Your task to perform on an android device: turn off notifications in google photos Image 0: 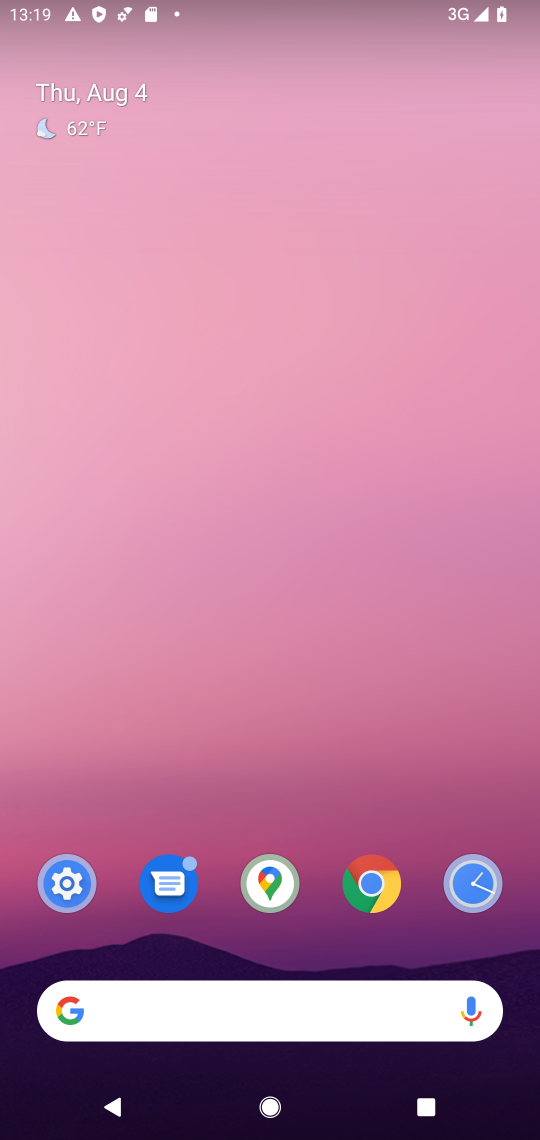
Step 0: drag from (216, 923) to (227, 123)
Your task to perform on an android device: turn off notifications in google photos Image 1: 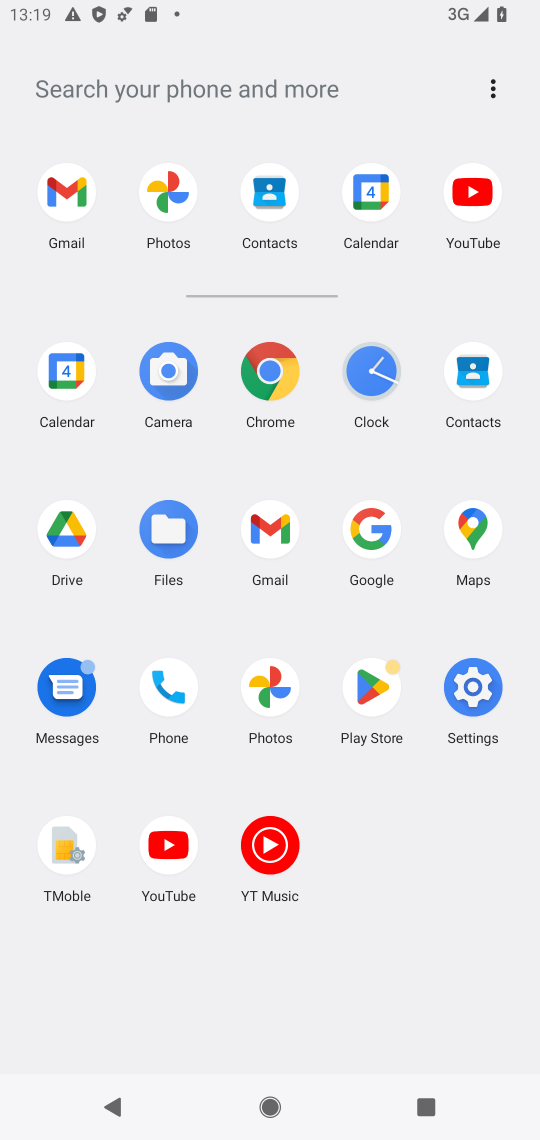
Step 1: click (284, 699)
Your task to perform on an android device: turn off notifications in google photos Image 2: 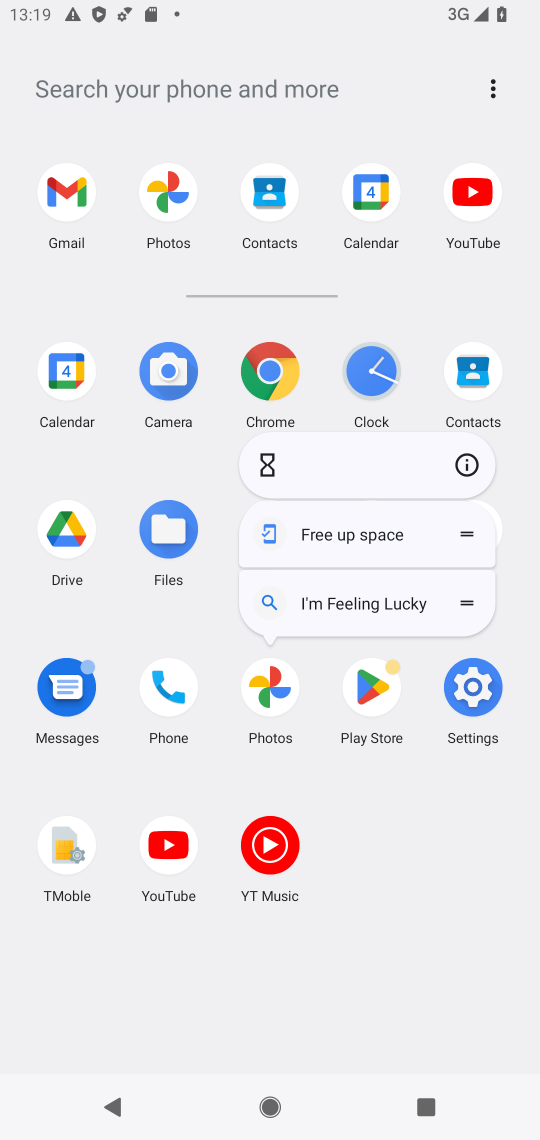
Step 2: click (472, 458)
Your task to perform on an android device: turn off notifications in google photos Image 3: 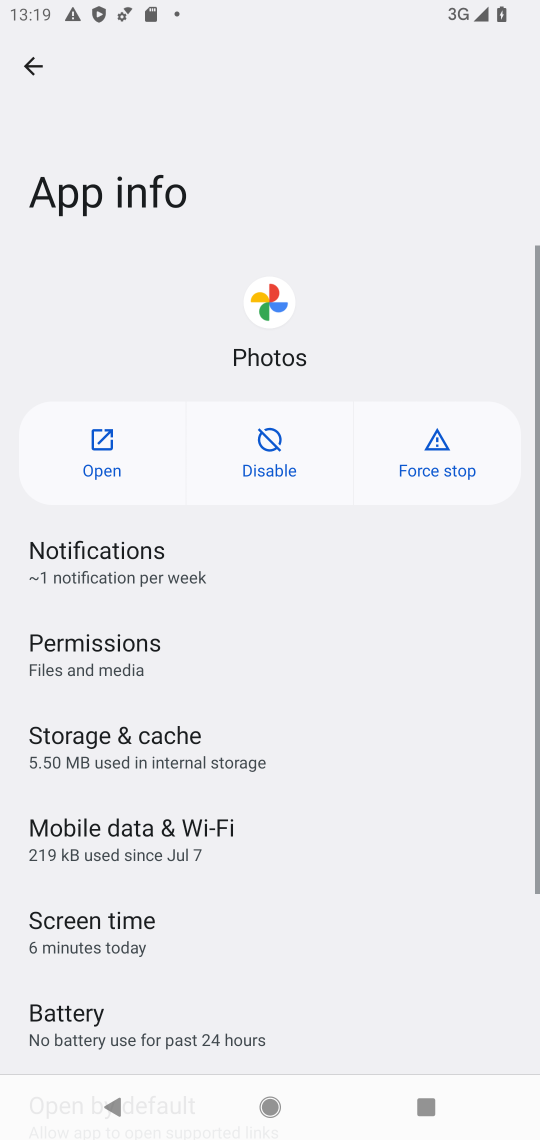
Step 3: click (59, 468)
Your task to perform on an android device: turn off notifications in google photos Image 4: 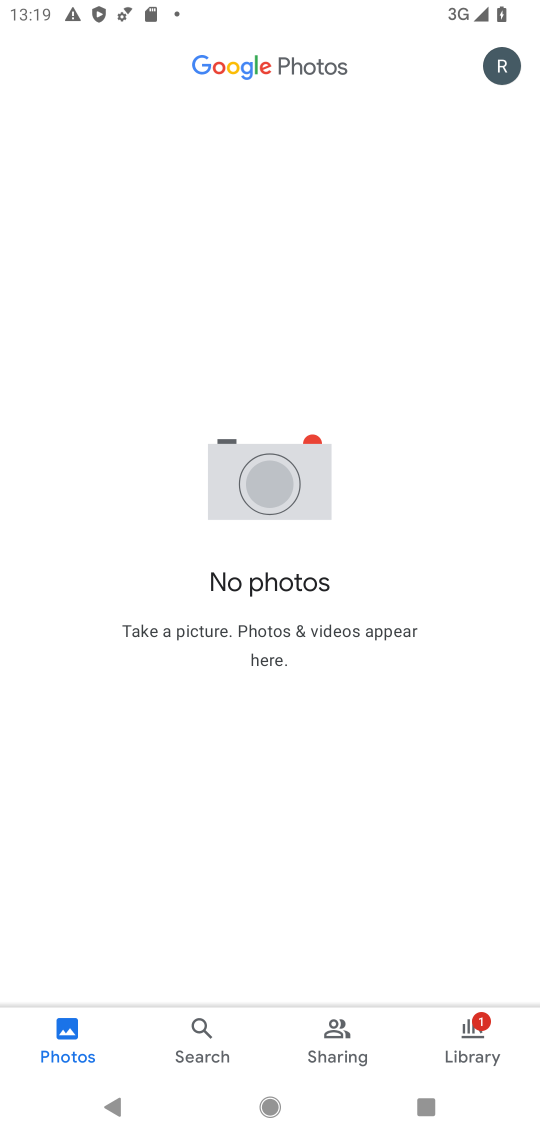
Step 4: drag from (305, 872) to (357, 583)
Your task to perform on an android device: turn off notifications in google photos Image 5: 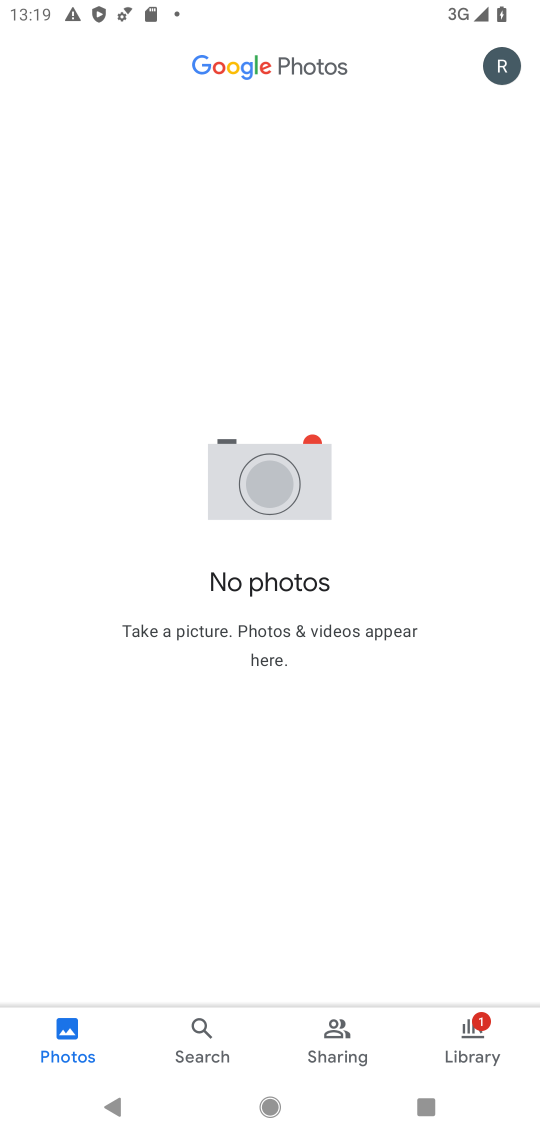
Step 5: drag from (302, 849) to (305, 549)
Your task to perform on an android device: turn off notifications in google photos Image 6: 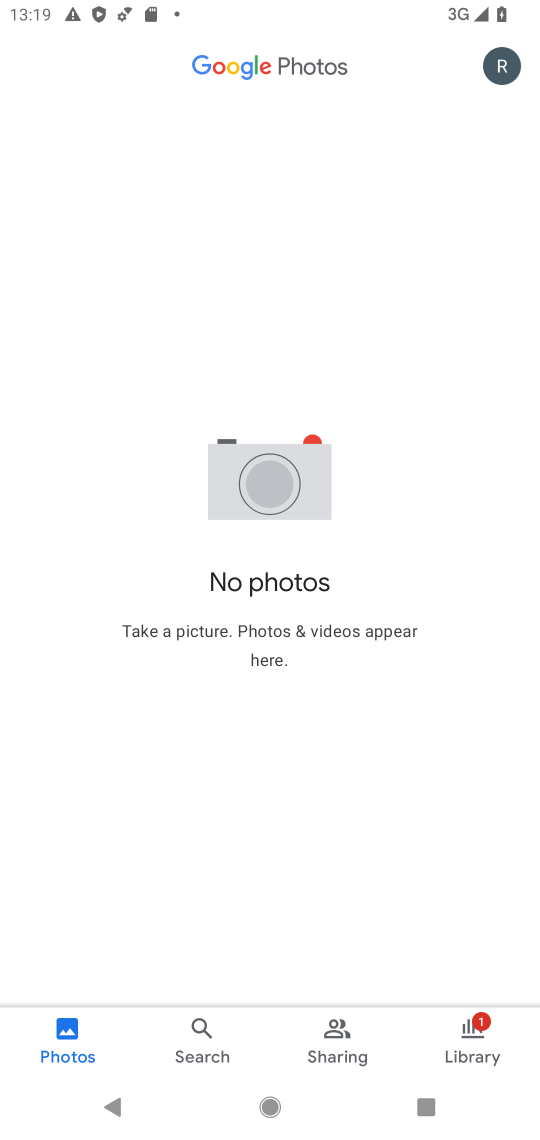
Step 6: click (504, 69)
Your task to perform on an android device: turn off notifications in google photos Image 7: 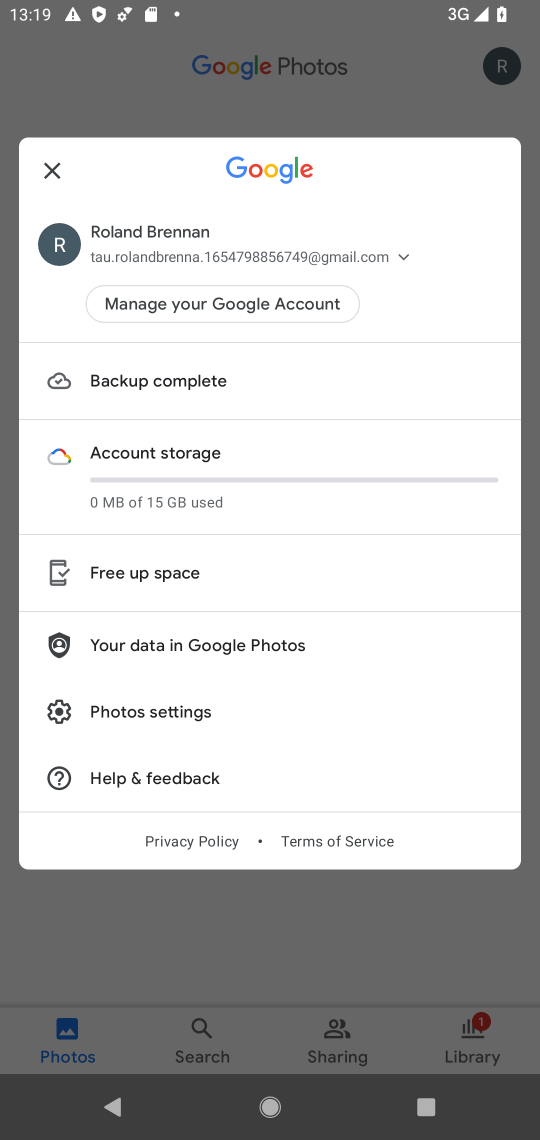
Step 7: click (119, 720)
Your task to perform on an android device: turn off notifications in google photos Image 8: 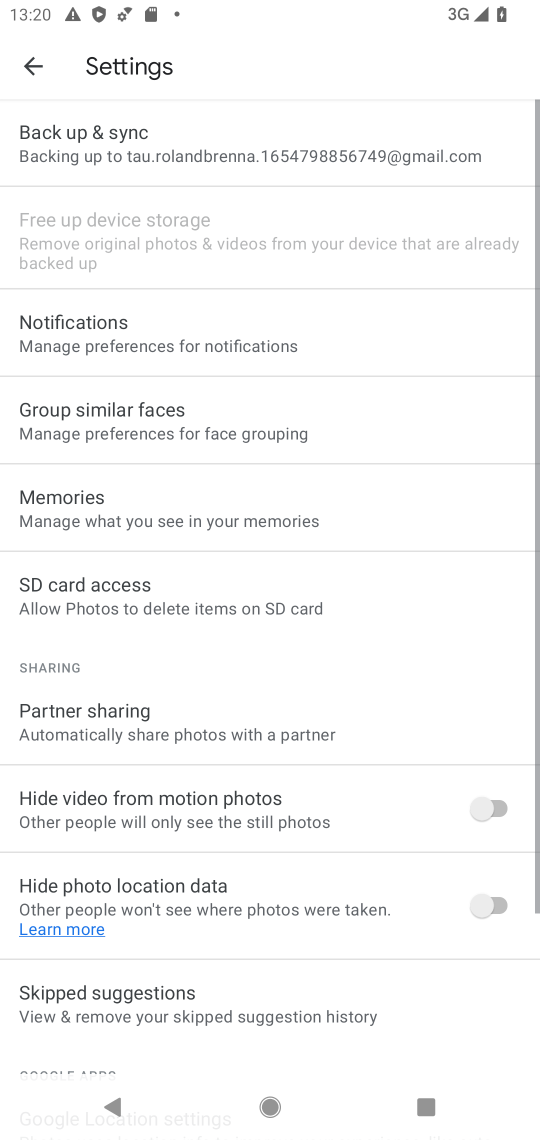
Step 8: drag from (244, 864) to (303, 466)
Your task to perform on an android device: turn off notifications in google photos Image 9: 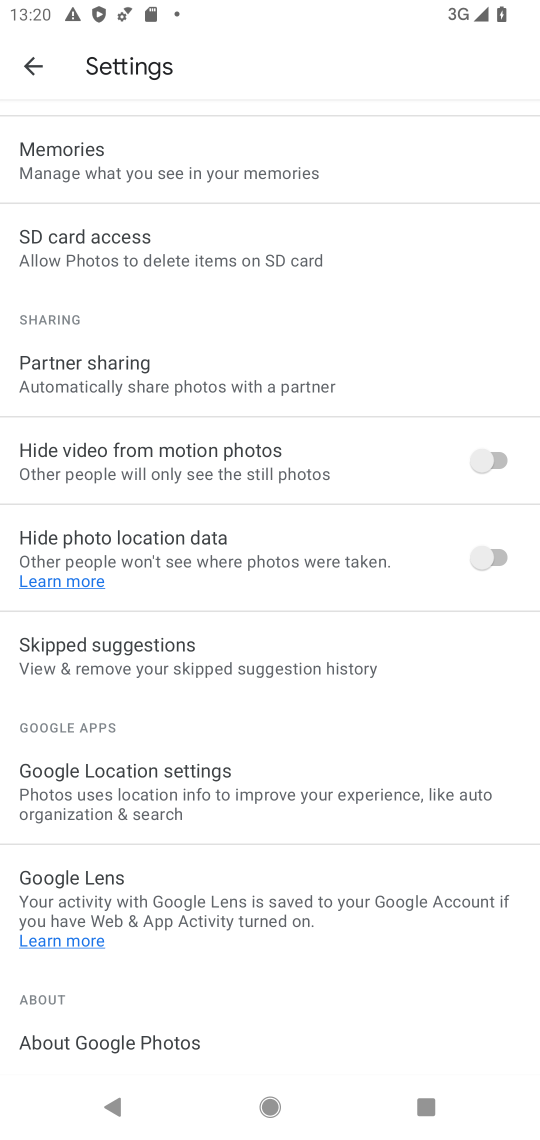
Step 9: drag from (222, 292) to (247, 948)
Your task to perform on an android device: turn off notifications in google photos Image 10: 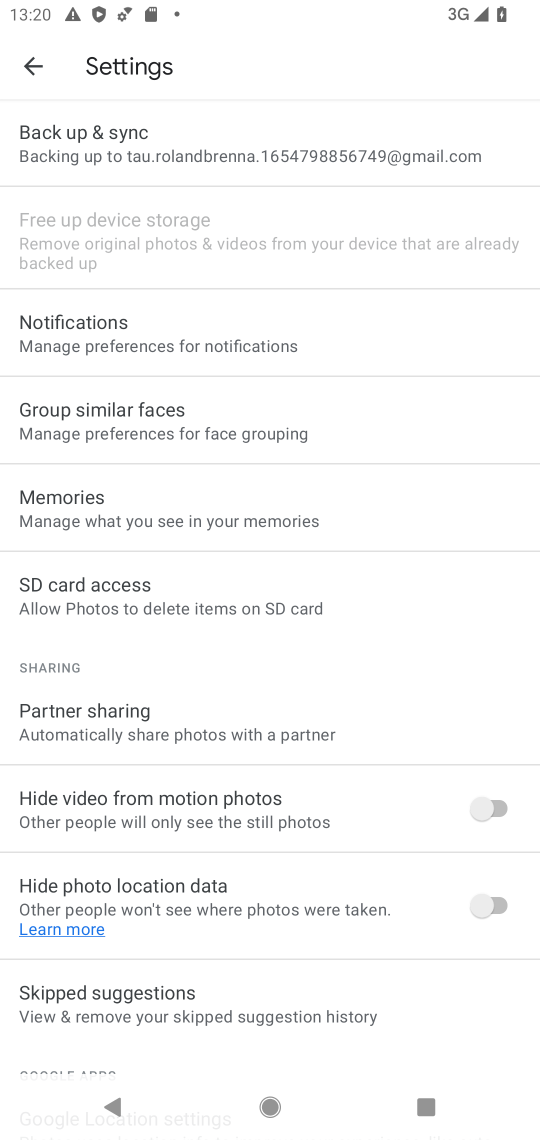
Step 10: drag from (203, 882) to (372, 293)
Your task to perform on an android device: turn off notifications in google photos Image 11: 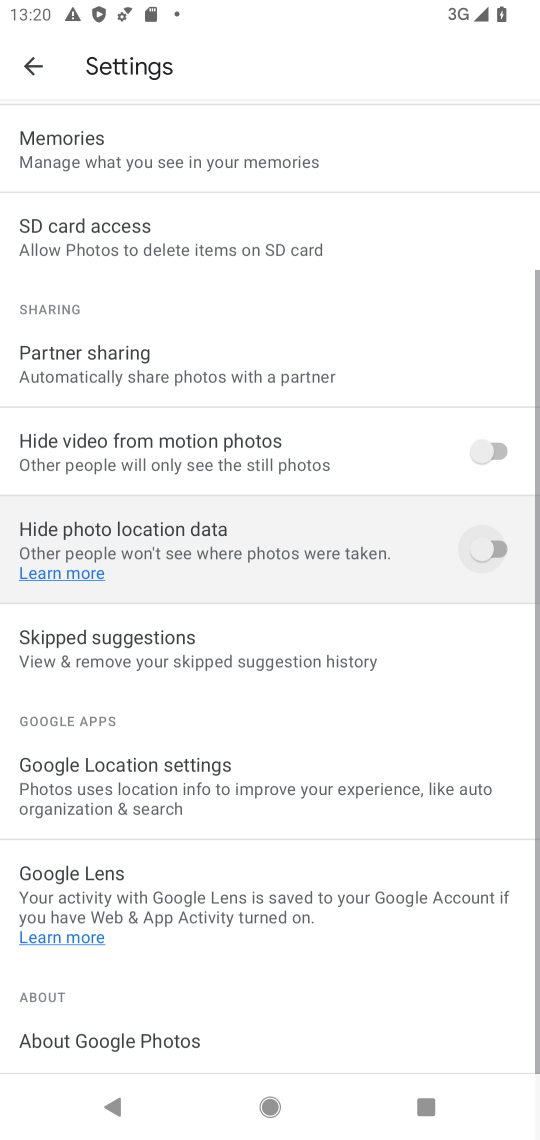
Step 11: drag from (338, 353) to (222, 1078)
Your task to perform on an android device: turn off notifications in google photos Image 12: 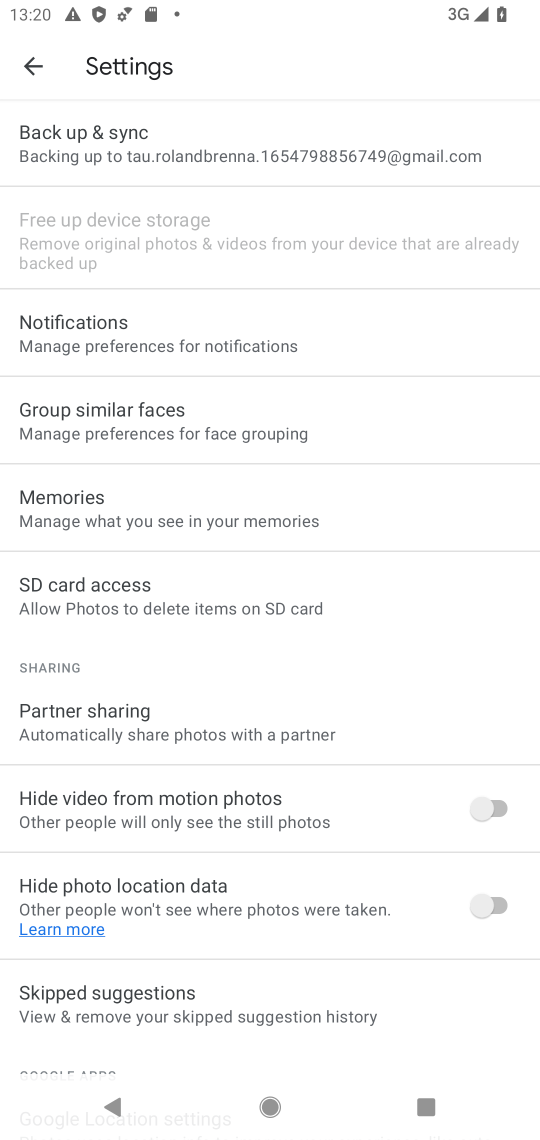
Step 12: click (133, 340)
Your task to perform on an android device: turn off notifications in google photos Image 13: 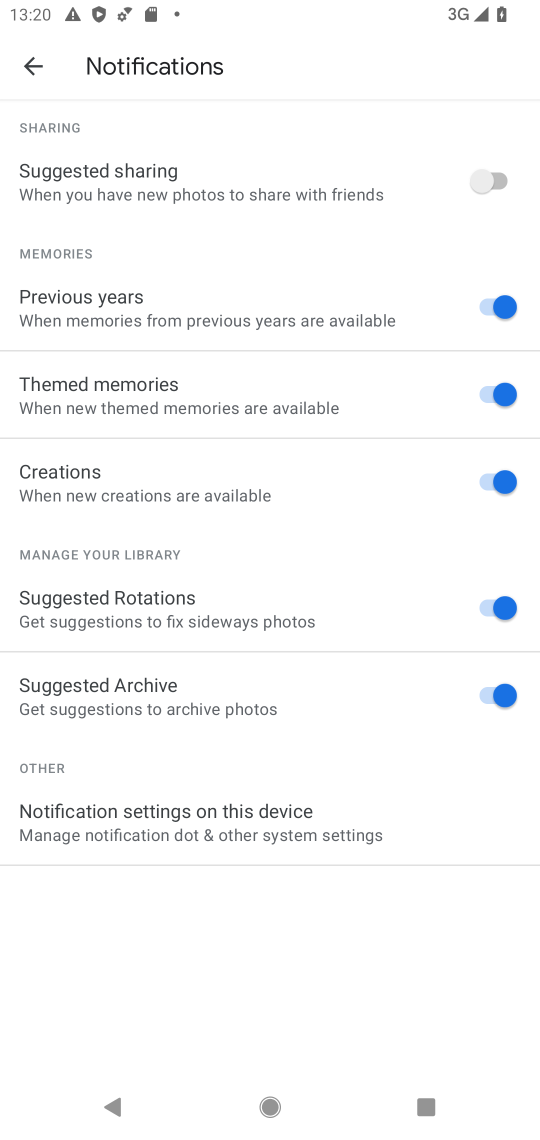
Step 13: click (179, 829)
Your task to perform on an android device: turn off notifications in google photos Image 14: 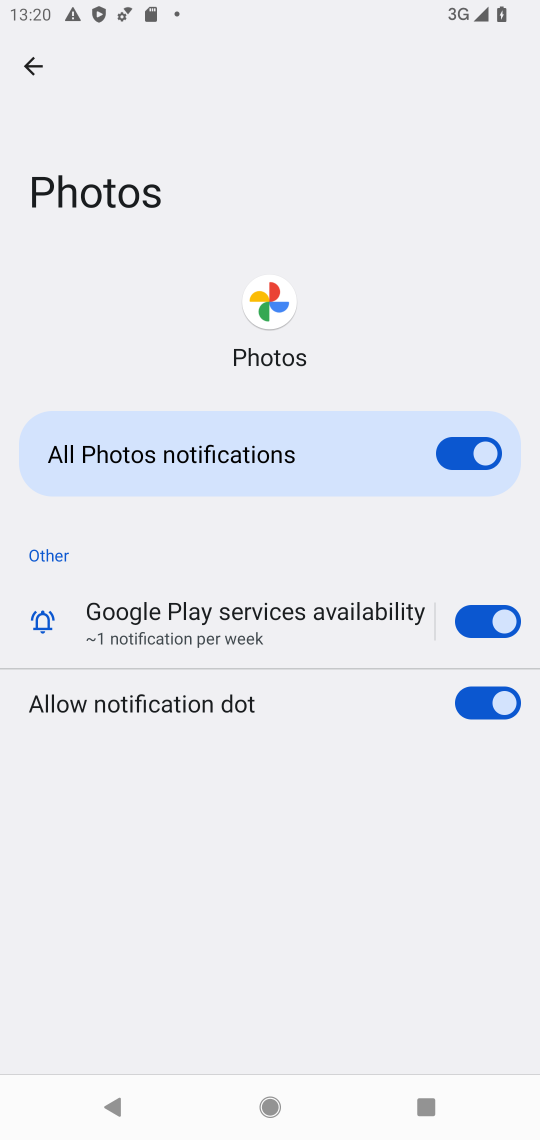
Step 14: drag from (367, 926) to (420, 508)
Your task to perform on an android device: turn off notifications in google photos Image 15: 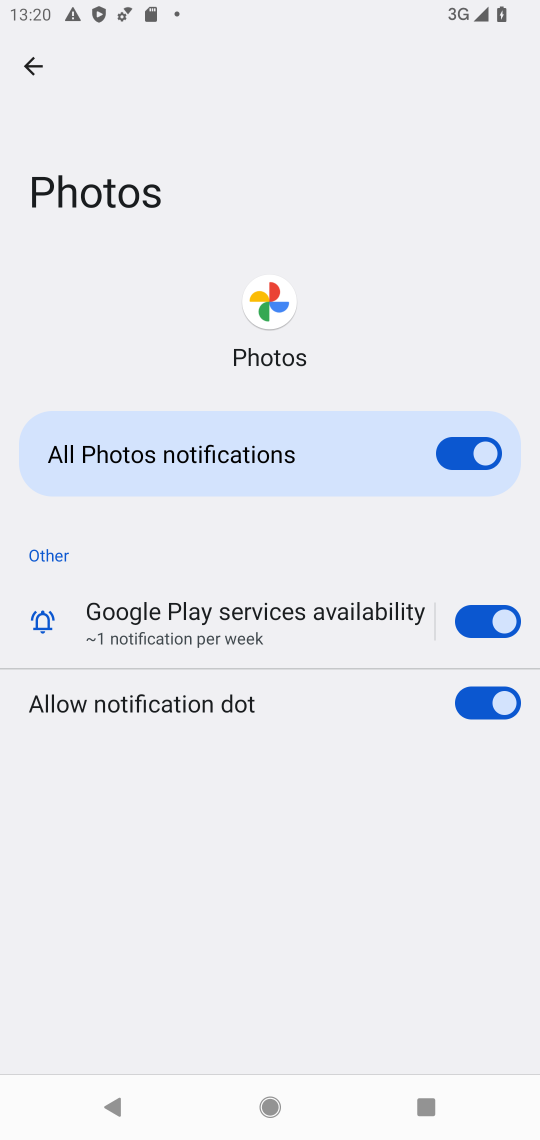
Step 15: click (456, 434)
Your task to perform on an android device: turn off notifications in google photos Image 16: 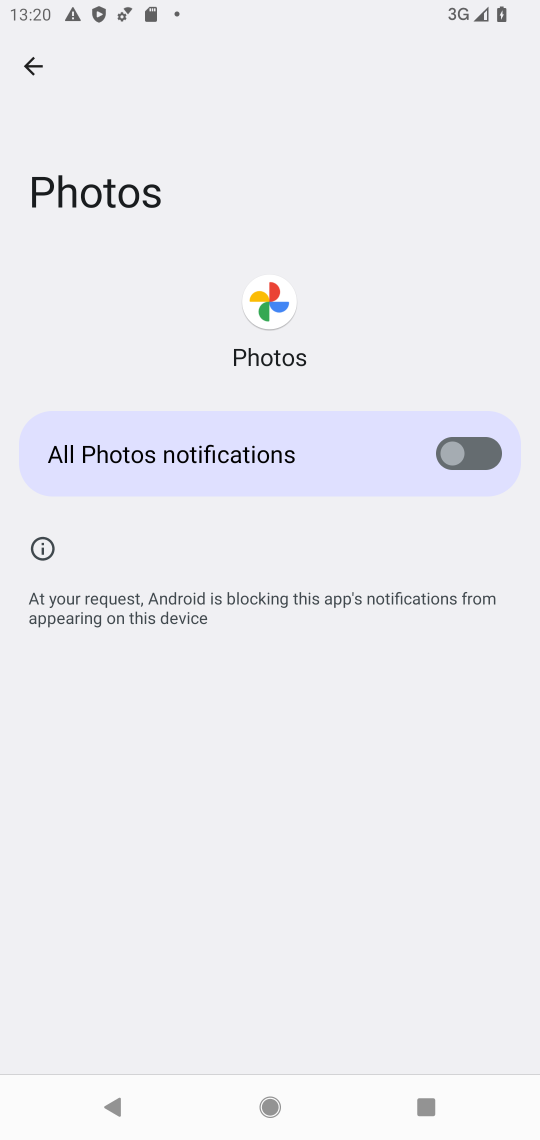
Step 16: task complete